Your task to perform on an android device: turn on airplane mode Image 0: 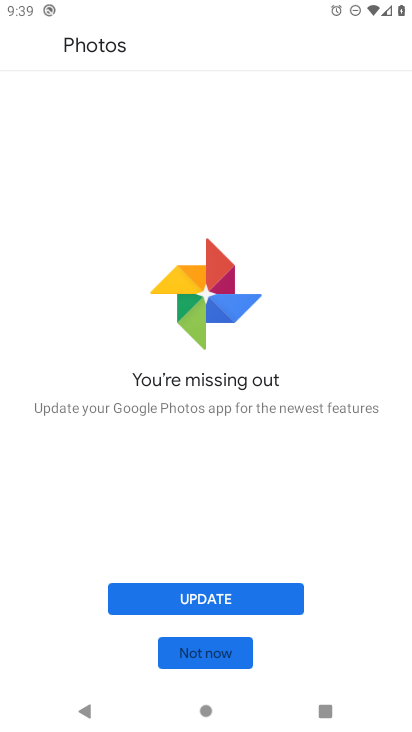
Step 0: press home button
Your task to perform on an android device: turn on airplane mode Image 1: 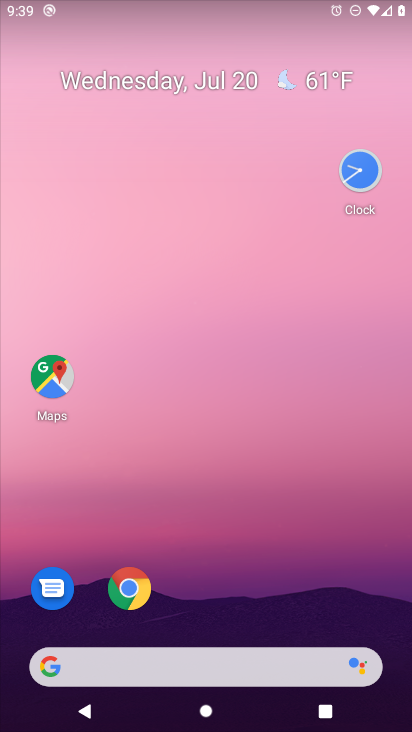
Step 1: drag from (53, 707) to (234, 174)
Your task to perform on an android device: turn on airplane mode Image 2: 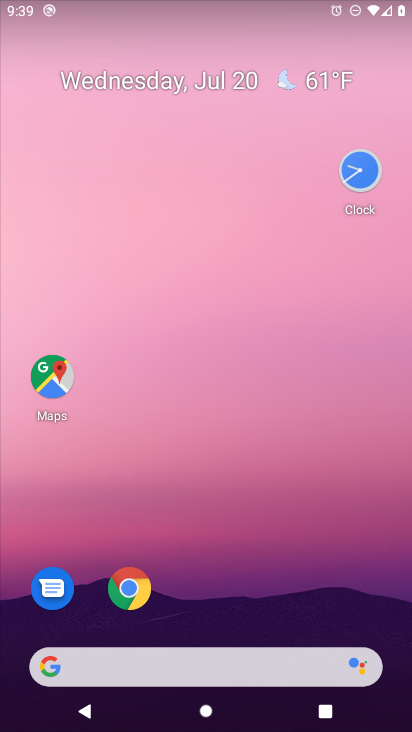
Step 2: drag from (54, 699) to (66, 532)
Your task to perform on an android device: turn on airplane mode Image 3: 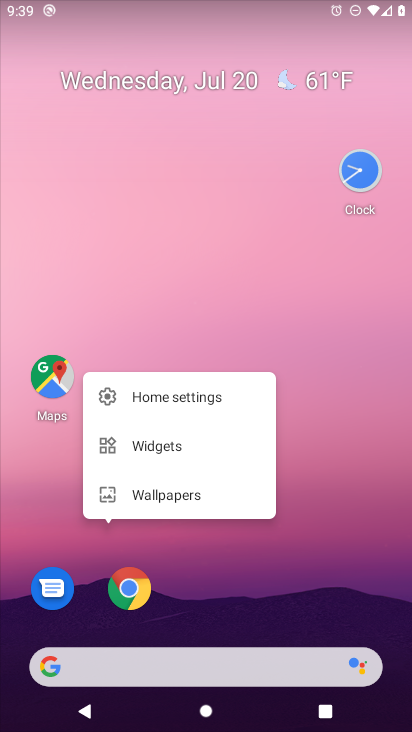
Step 3: click (12, 707)
Your task to perform on an android device: turn on airplane mode Image 4: 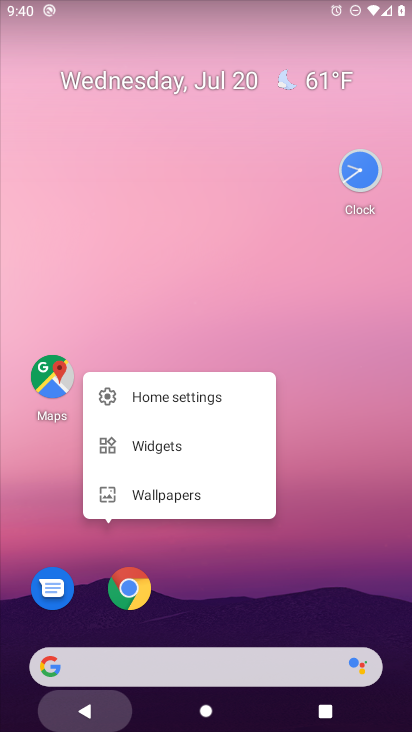
Step 4: drag from (14, 705) to (220, 62)
Your task to perform on an android device: turn on airplane mode Image 5: 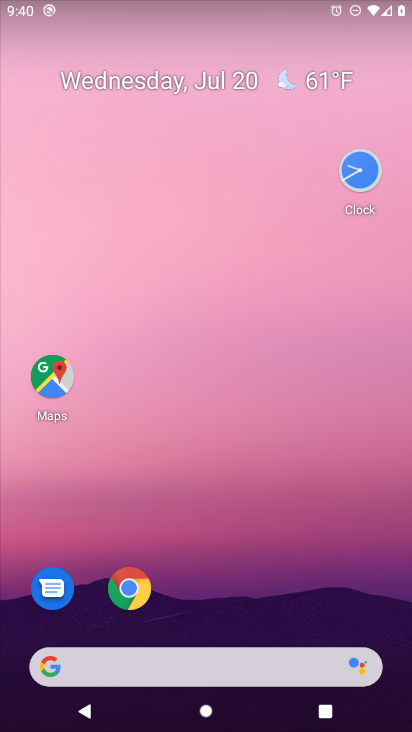
Step 5: drag from (15, 709) to (142, 307)
Your task to perform on an android device: turn on airplane mode Image 6: 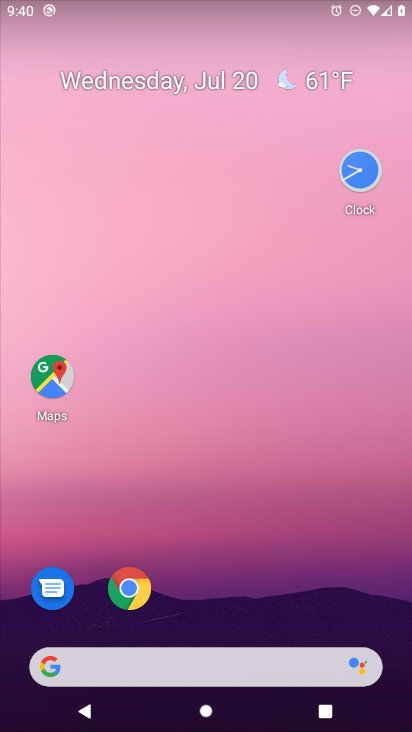
Step 6: drag from (53, 707) to (158, 80)
Your task to perform on an android device: turn on airplane mode Image 7: 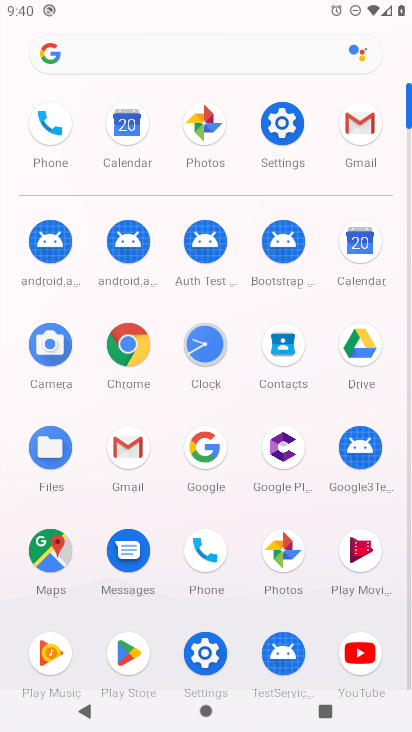
Step 7: click (195, 646)
Your task to perform on an android device: turn on airplane mode Image 8: 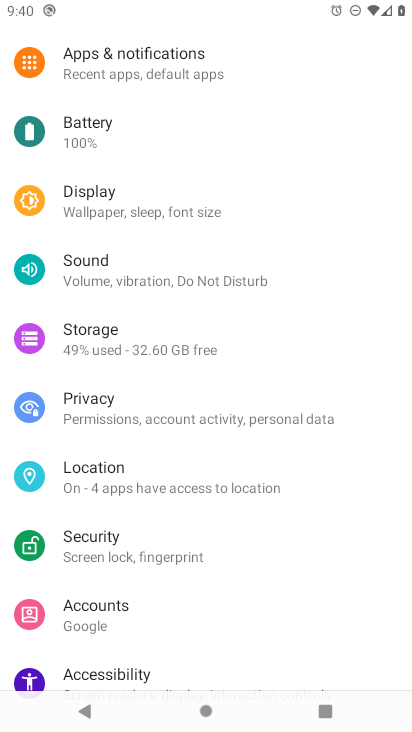
Step 8: click (84, 63)
Your task to perform on an android device: turn on airplane mode Image 9: 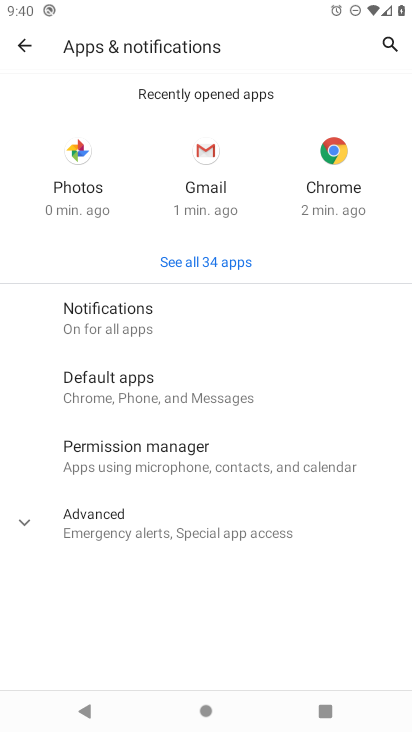
Step 9: click (32, 56)
Your task to perform on an android device: turn on airplane mode Image 10: 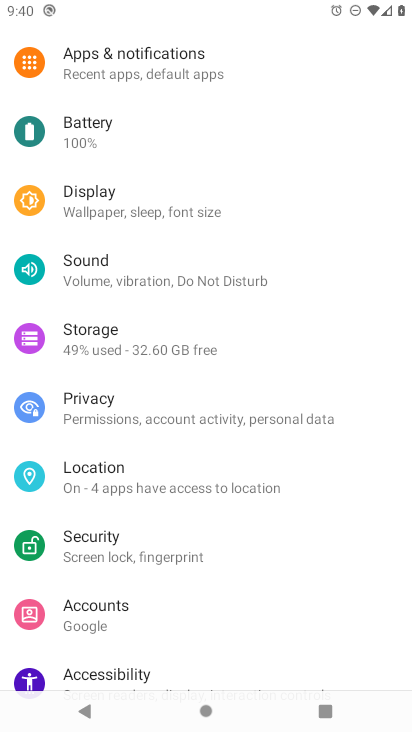
Step 10: drag from (254, 95) to (317, 572)
Your task to perform on an android device: turn on airplane mode Image 11: 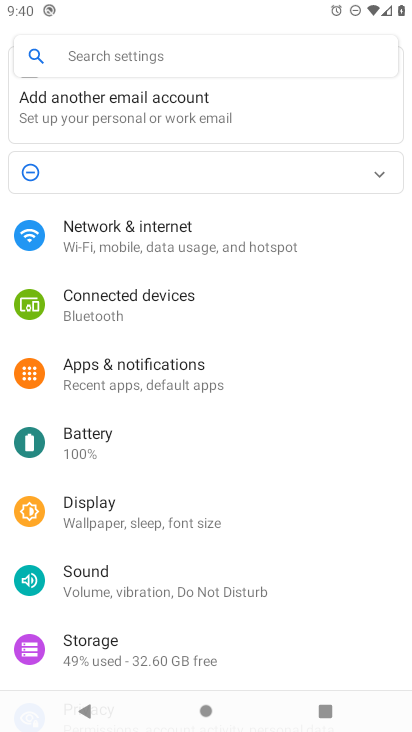
Step 11: click (134, 234)
Your task to perform on an android device: turn on airplane mode Image 12: 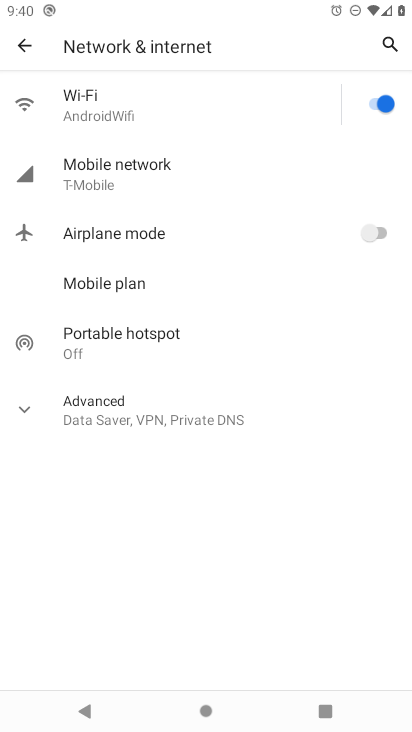
Step 12: click (375, 229)
Your task to perform on an android device: turn on airplane mode Image 13: 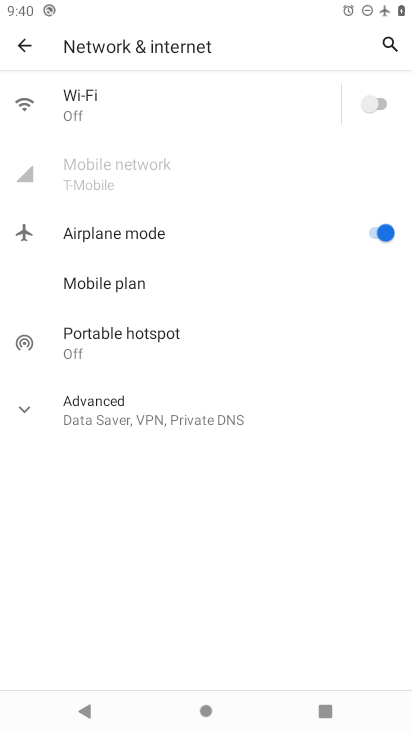
Step 13: task complete